Your task to perform on an android device: snooze an email in the gmail app Image 0: 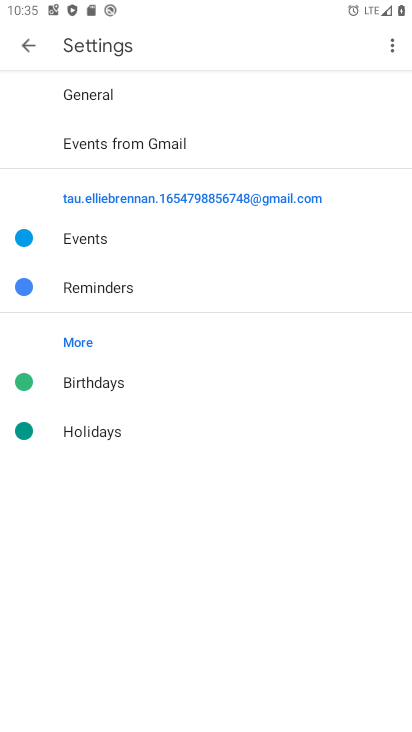
Step 0: press home button
Your task to perform on an android device: snooze an email in the gmail app Image 1: 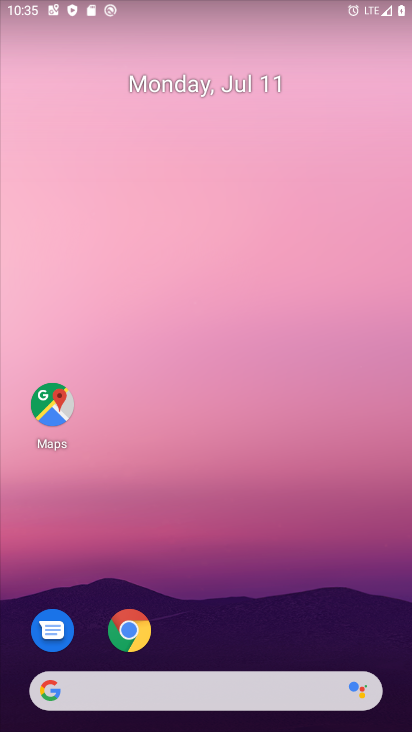
Step 1: drag from (209, 621) to (196, 53)
Your task to perform on an android device: snooze an email in the gmail app Image 2: 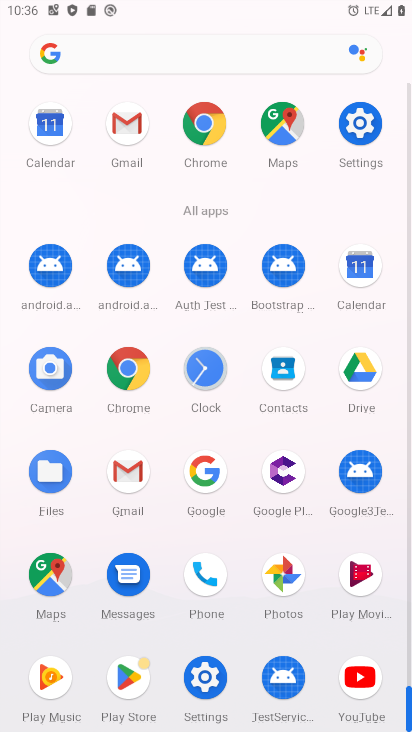
Step 2: click (114, 122)
Your task to perform on an android device: snooze an email in the gmail app Image 3: 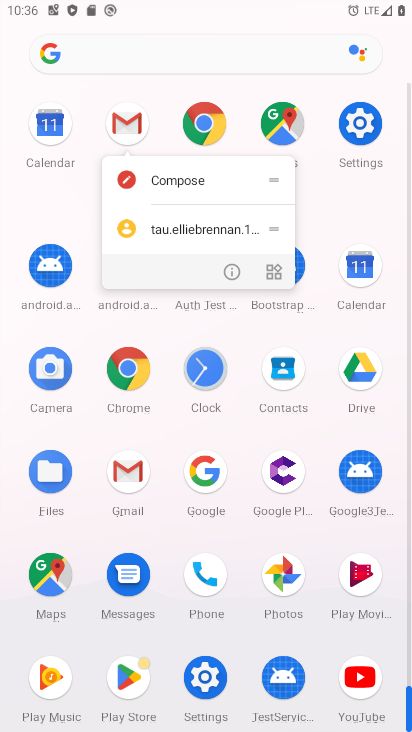
Step 3: click (115, 120)
Your task to perform on an android device: snooze an email in the gmail app Image 4: 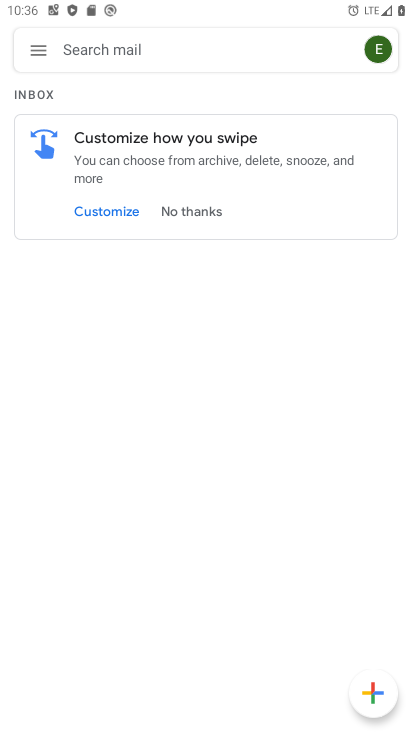
Step 4: task complete